Your task to perform on an android device: Do I have any events tomorrow? Image 0: 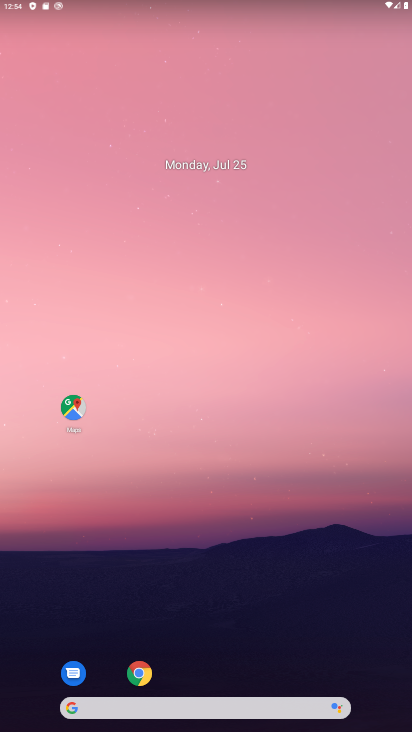
Step 0: drag from (335, 642) to (327, 97)
Your task to perform on an android device: Do I have any events tomorrow? Image 1: 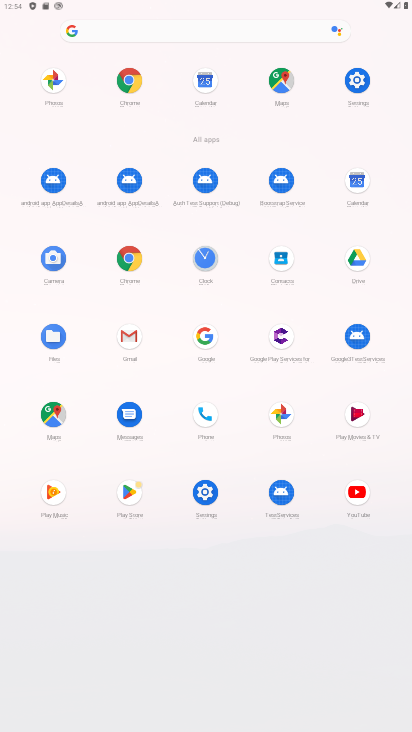
Step 1: click (354, 175)
Your task to perform on an android device: Do I have any events tomorrow? Image 2: 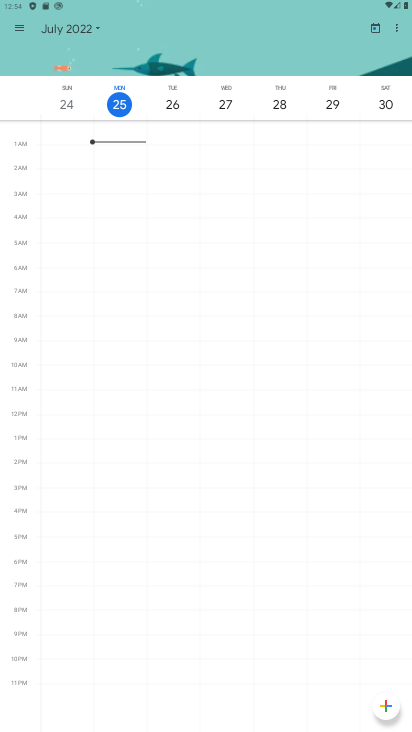
Step 2: click (21, 26)
Your task to perform on an android device: Do I have any events tomorrow? Image 3: 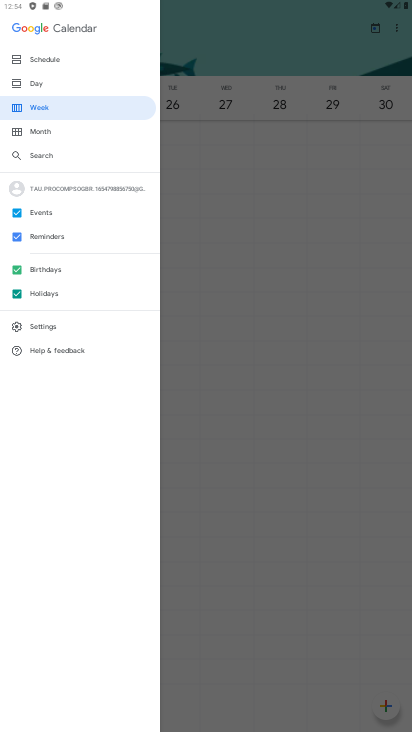
Step 3: click (36, 84)
Your task to perform on an android device: Do I have any events tomorrow? Image 4: 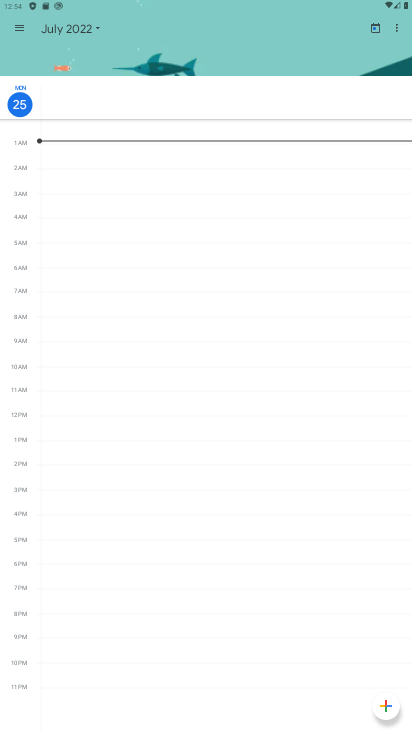
Step 4: click (97, 32)
Your task to perform on an android device: Do I have any events tomorrow? Image 5: 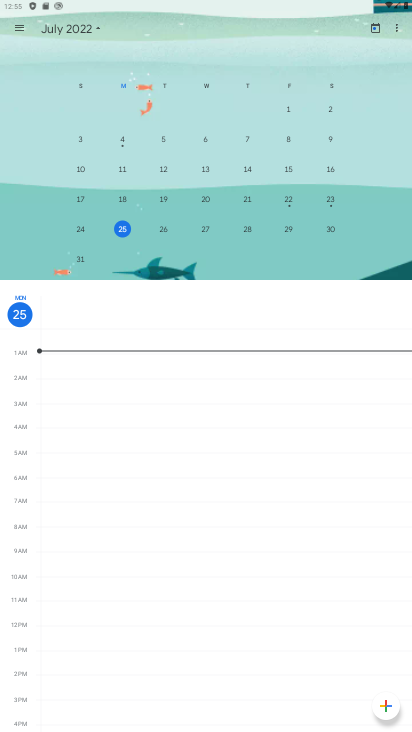
Step 5: click (168, 232)
Your task to perform on an android device: Do I have any events tomorrow? Image 6: 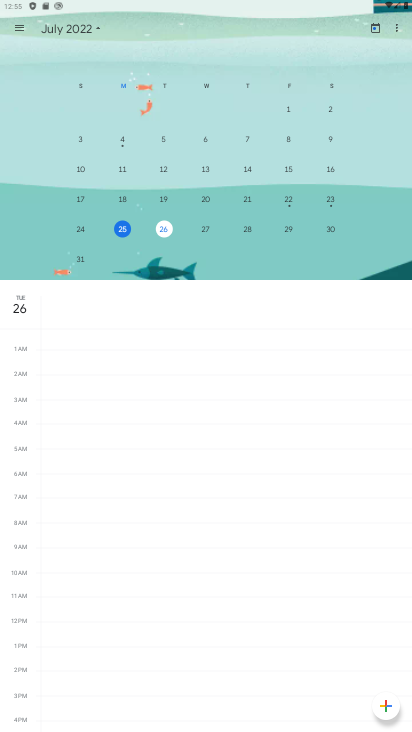
Step 6: task complete